Your task to perform on an android device: uninstall "Flipkart Online Shopping App" Image 0: 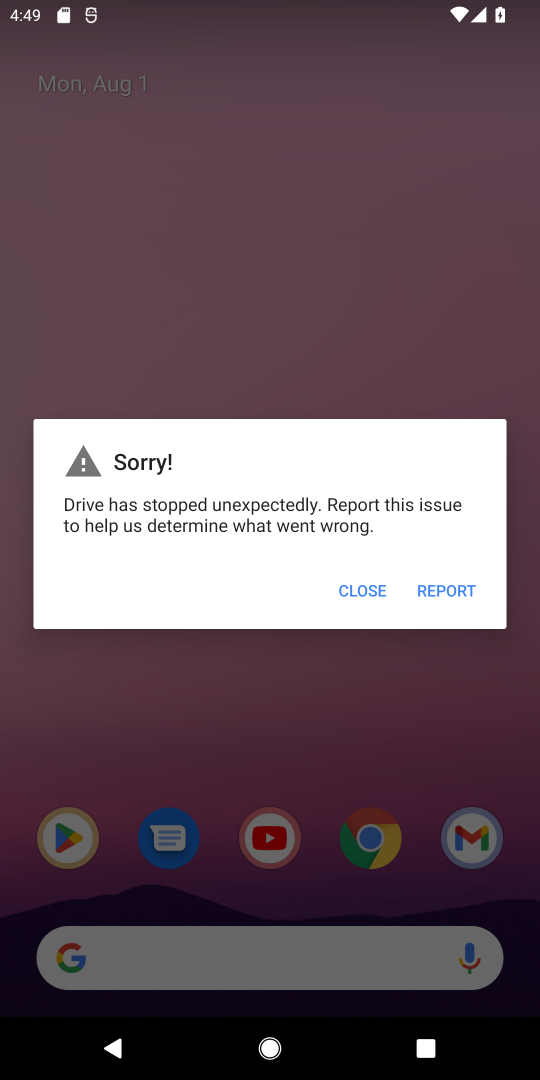
Step 0: press back button
Your task to perform on an android device: uninstall "Flipkart Online Shopping App" Image 1: 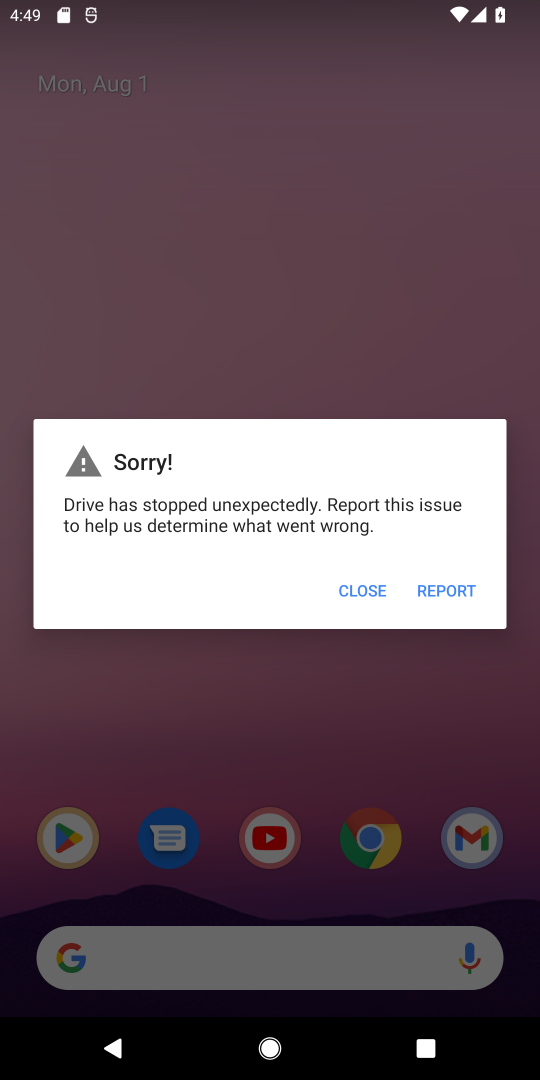
Step 1: press home button
Your task to perform on an android device: uninstall "Flipkart Online Shopping App" Image 2: 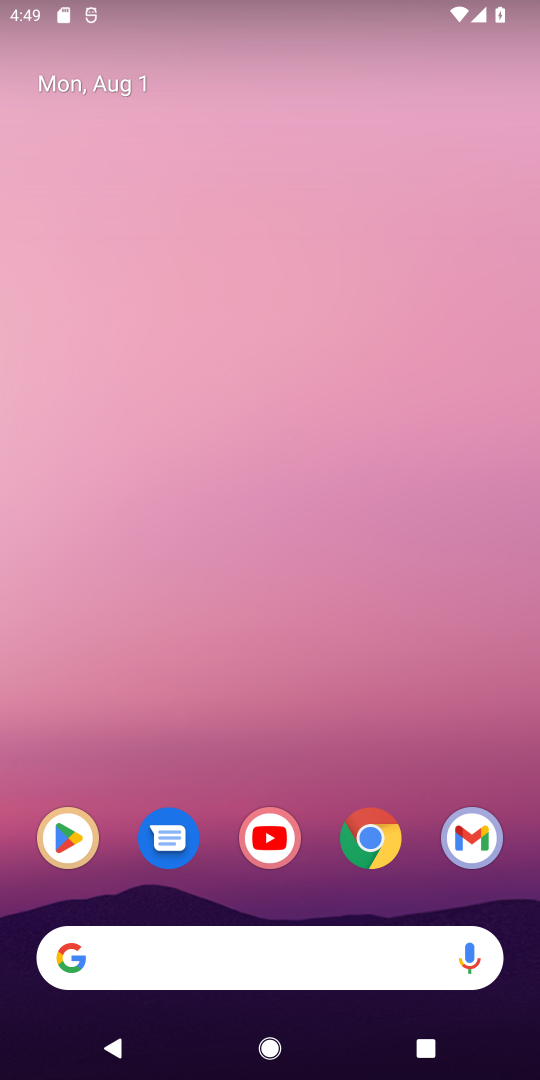
Step 2: click (99, 824)
Your task to perform on an android device: uninstall "Flipkart Online Shopping App" Image 3: 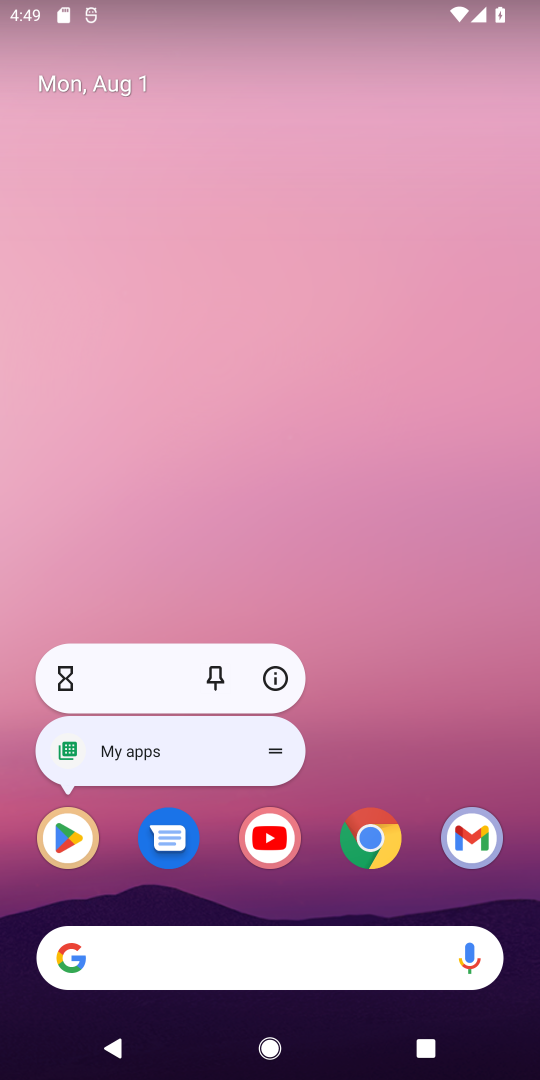
Step 3: click (96, 827)
Your task to perform on an android device: uninstall "Flipkart Online Shopping App" Image 4: 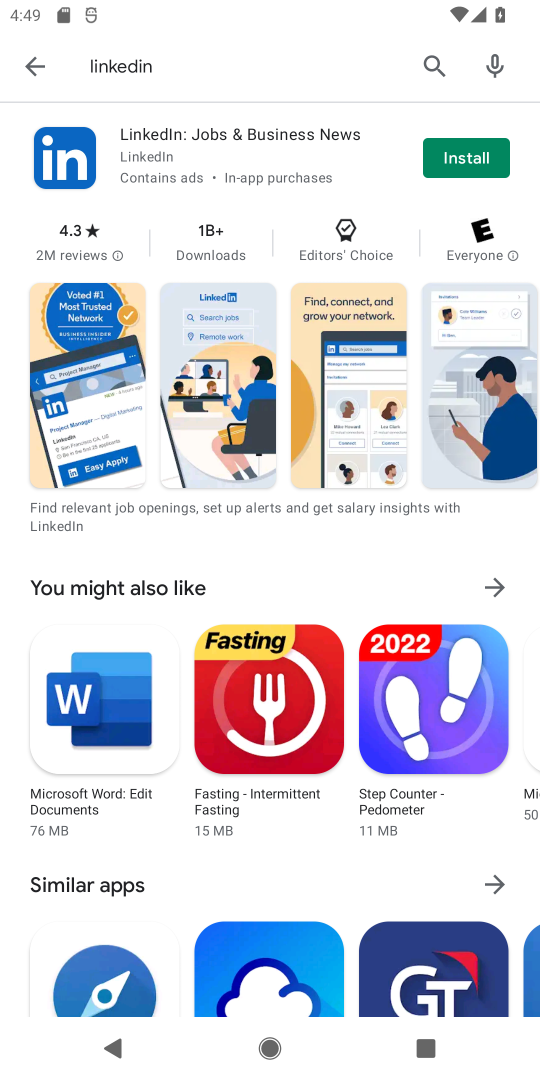
Step 4: click (441, 60)
Your task to perform on an android device: uninstall "Flipkart Online Shopping App" Image 5: 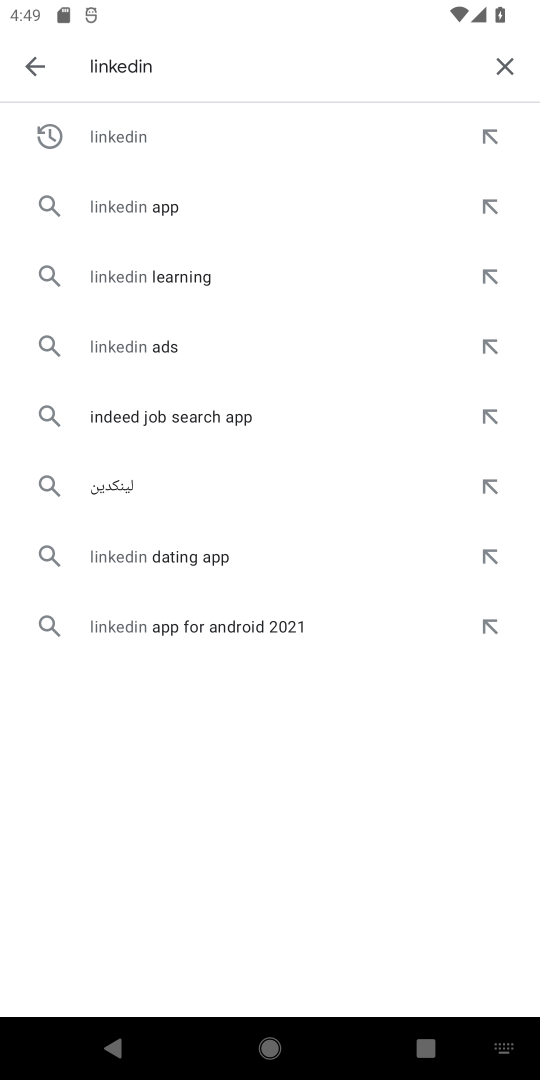
Step 5: click (490, 56)
Your task to perform on an android device: uninstall "Flipkart Online Shopping App" Image 6: 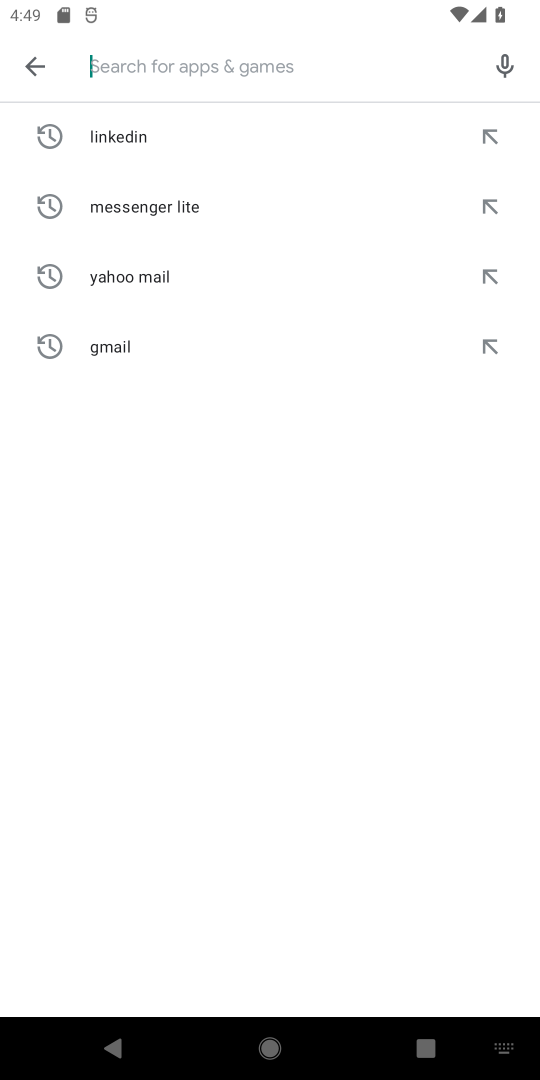
Step 6: type "Flipkart Online Shopping App"
Your task to perform on an android device: uninstall "Flipkart Online Shopping App" Image 7: 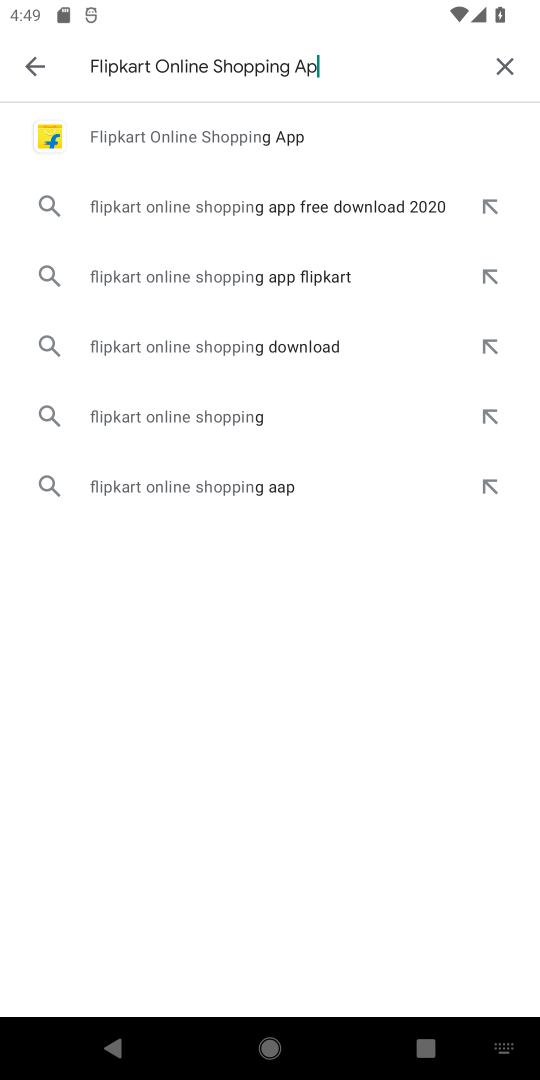
Step 7: type ""
Your task to perform on an android device: uninstall "Flipkart Online Shopping App" Image 8: 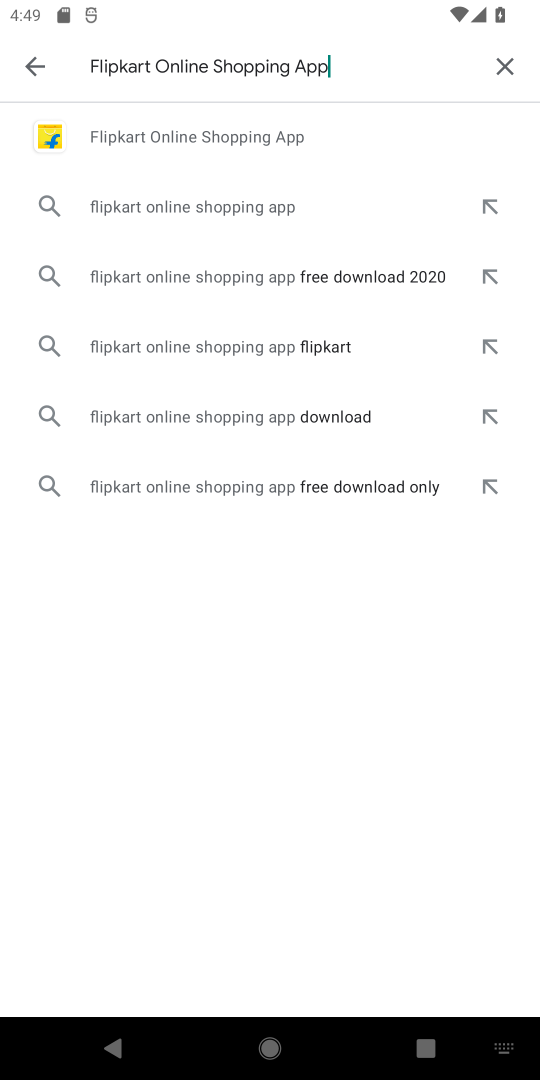
Step 8: click (155, 136)
Your task to perform on an android device: uninstall "Flipkart Online Shopping App" Image 9: 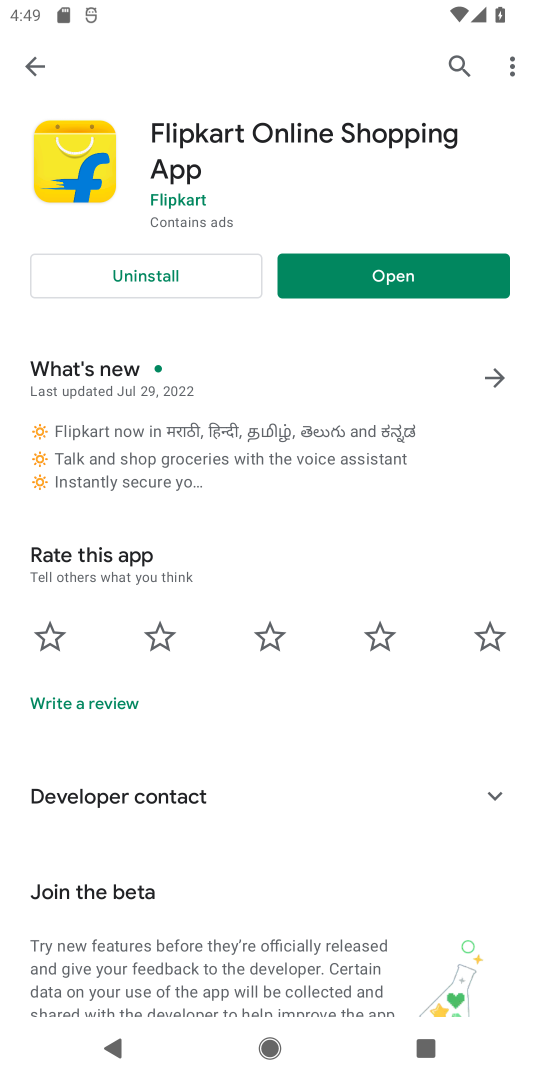
Step 9: click (136, 267)
Your task to perform on an android device: uninstall "Flipkart Online Shopping App" Image 10: 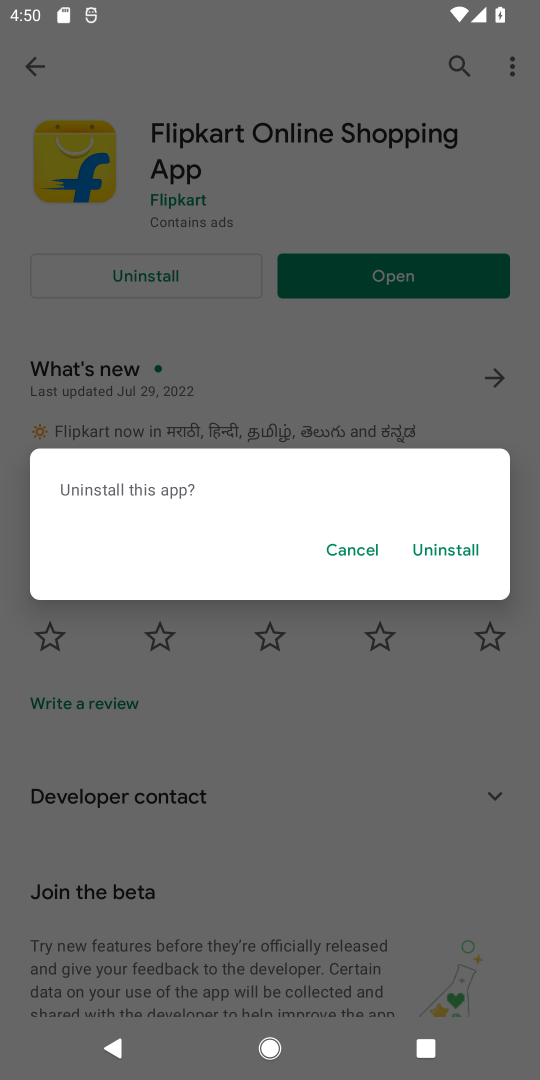
Step 10: click (444, 551)
Your task to perform on an android device: uninstall "Flipkart Online Shopping App" Image 11: 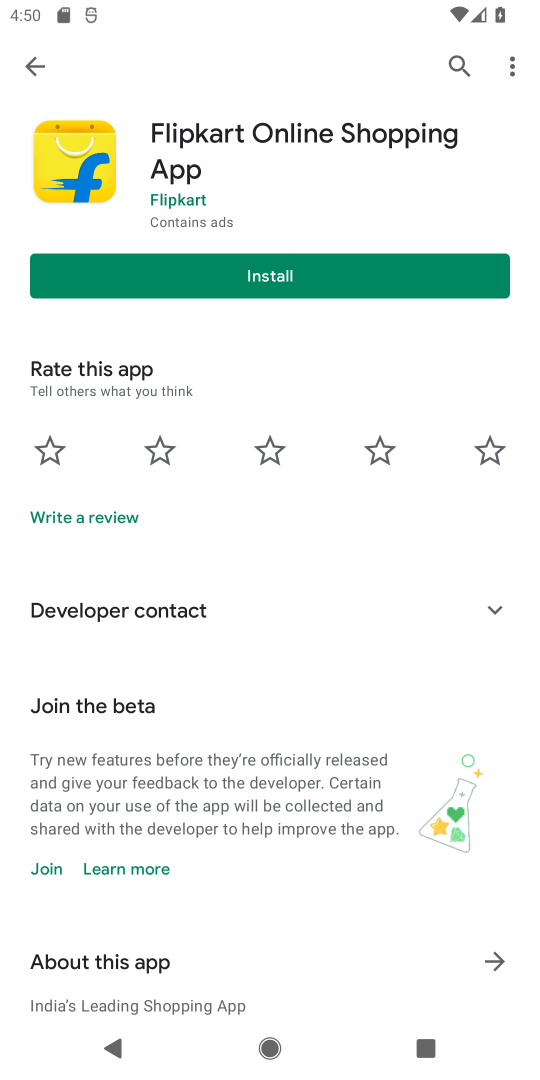
Step 11: task complete